Your task to perform on an android device: Open Youtube and go to "Your channel" Image 0: 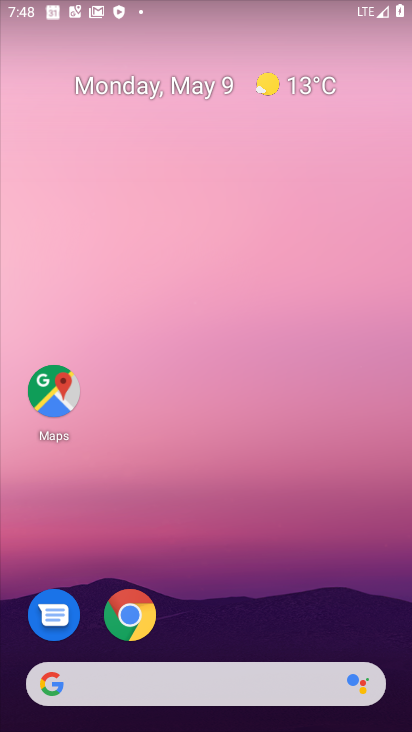
Step 0: drag from (231, 623) to (225, 25)
Your task to perform on an android device: Open Youtube and go to "Your channel" Image 1: 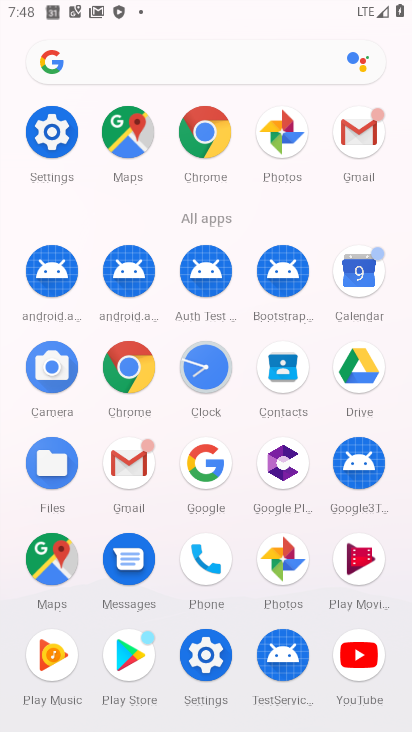
Step 1: click (362, 657)
Your task to perform on an android device: Open Youtube and go to "Your channel" Image 2: 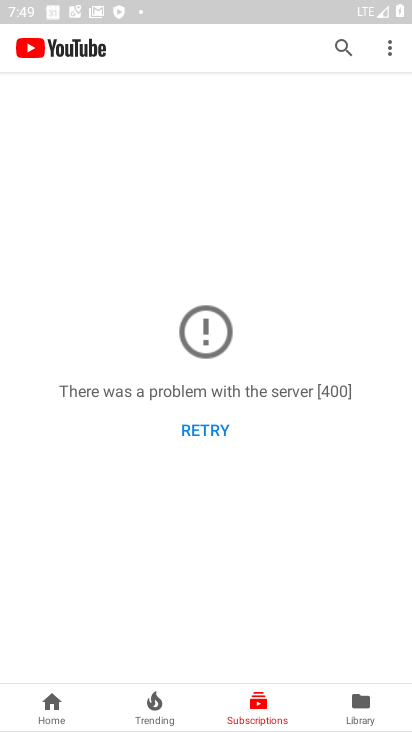
Step 2: click (348, 58)
Your task to perform on an android device: Open Youtube and go to "Your channel" Image 3: 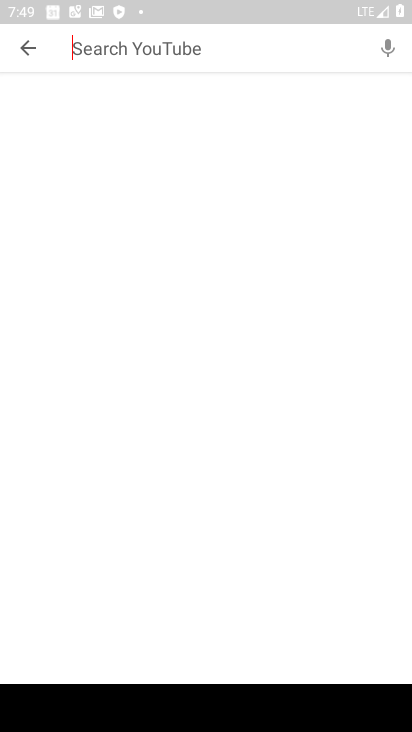
Step 3: type "your channel"
Your task to perform on an android device: Open Youtube and go to "Your channel" Image 4: 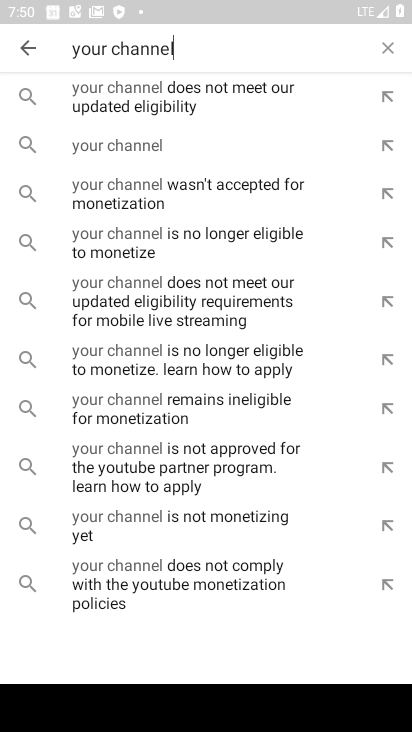
Step 4: click (173, 153)
Your task to perform on an android device: Open Youtube and go to "Your channel" Image 5: 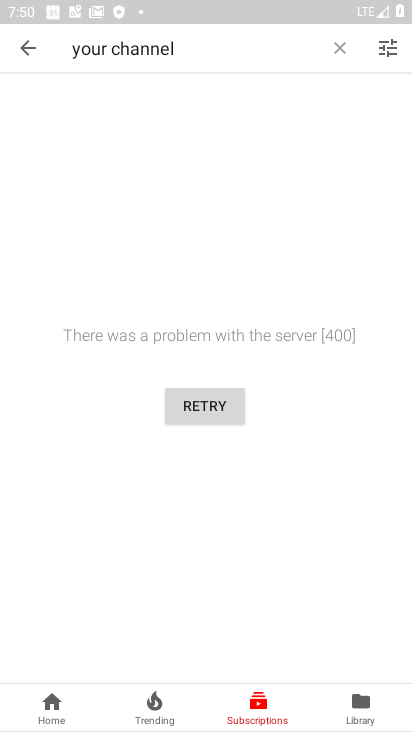
Step 5: task complete